Your task to perform on an android device: Open the calendar and show me this week's events Image 0: 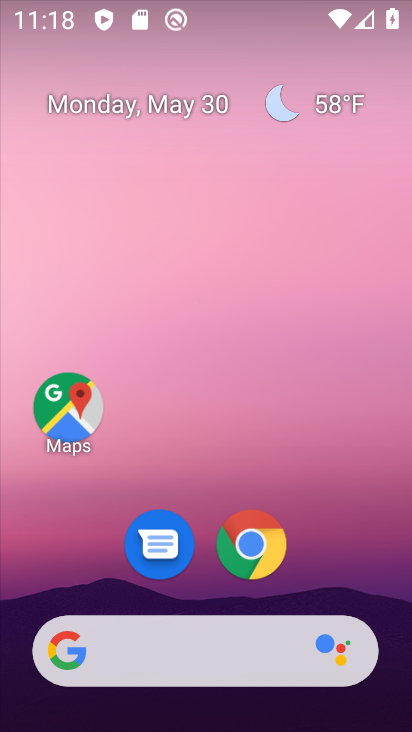
Step 0: task complete